Your task to perform on an android device: delete a single message in the gmail app Image 0: 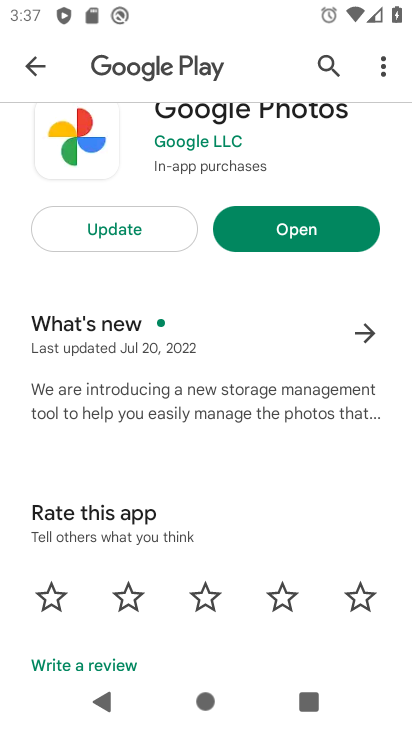
Step 0: press home button
Your task to perform on an android device: delete a single message in the gmail app Image 1: 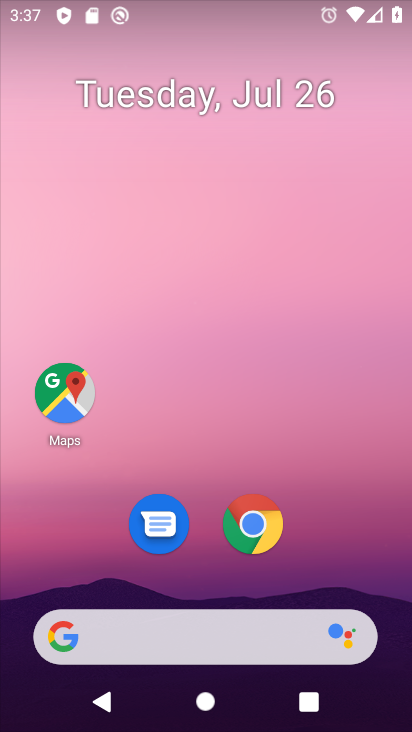
Step 1: drag from (309, 311) to (285, 49)
Your task to perform on an android device: delete a single message in the gmail app Image 2: 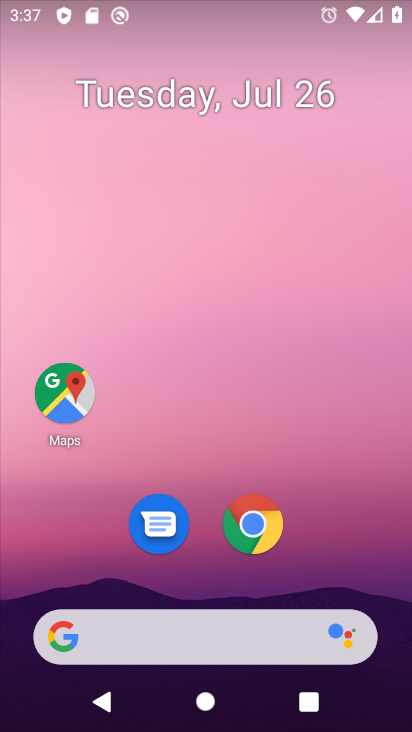
Step 2: drag from (339, 551) to (292, 0)
Your task to perform on an android device: delete a single message in the gmail app Image 3: 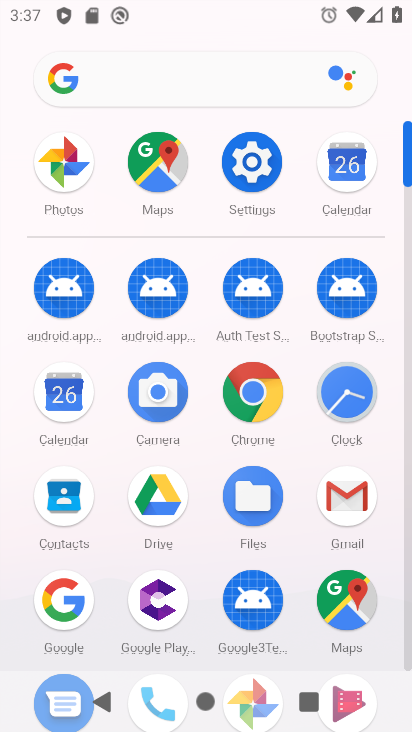
Step 3: click (348, 493)
Your task to perform on an android device: delete a single message in the gmail app Image 4: 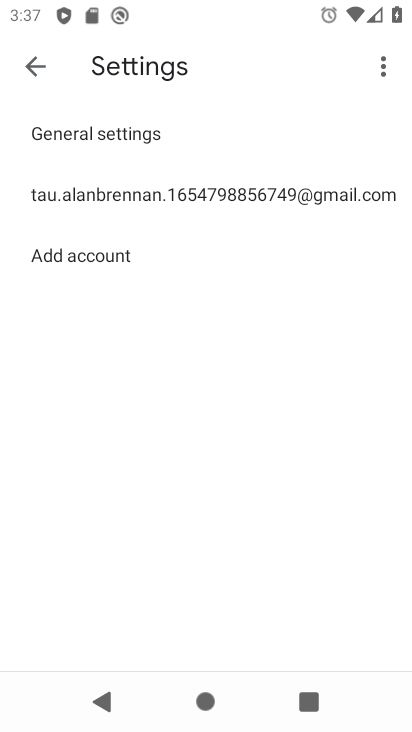
Step 4: click (37, 56)
Your task to perform on an android device: delete a single message in the gmail app Image 5: 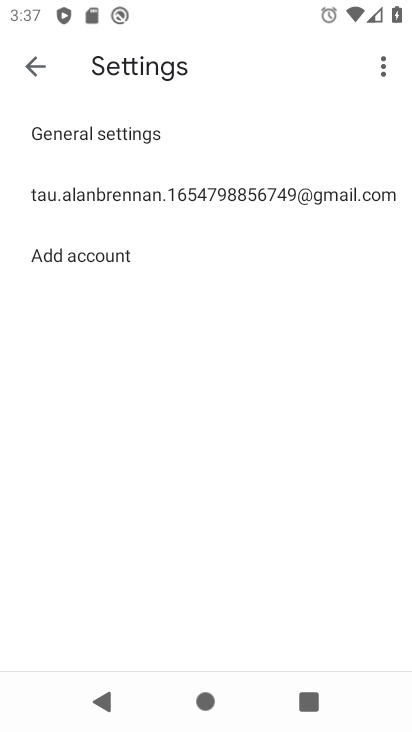
Step 5: click (38, 61)
Your task to perform on an android device: delete a single message in the gmail app Image 6: 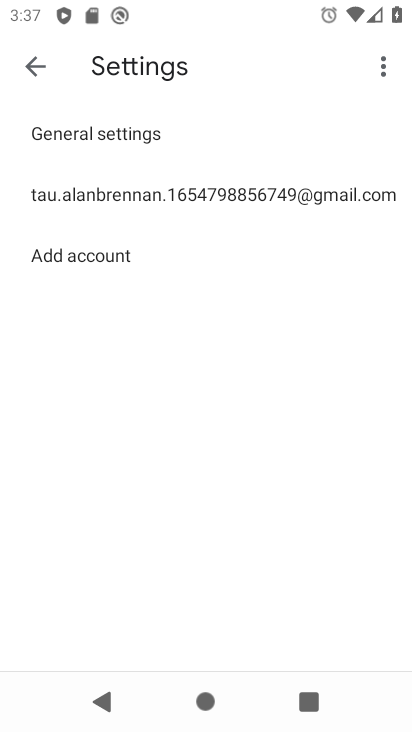
Step 6: click (38, 61)
Your task to perform on an android device: delete a single message in the gmail app Image 7: 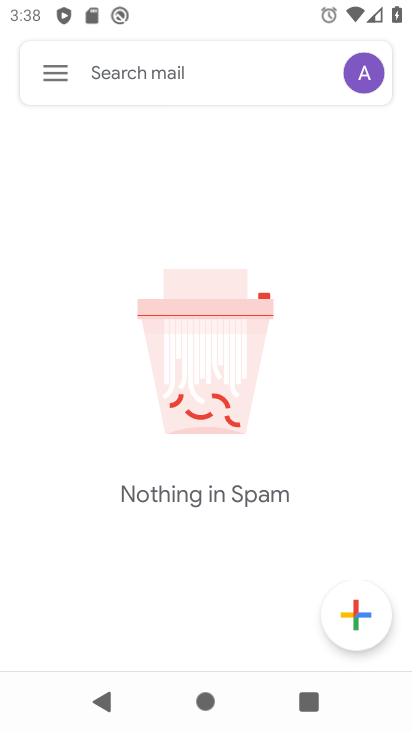
Step 7: click (53, 70)
Your task to perform on an android device: delete a single message in the gmail app Image 8: 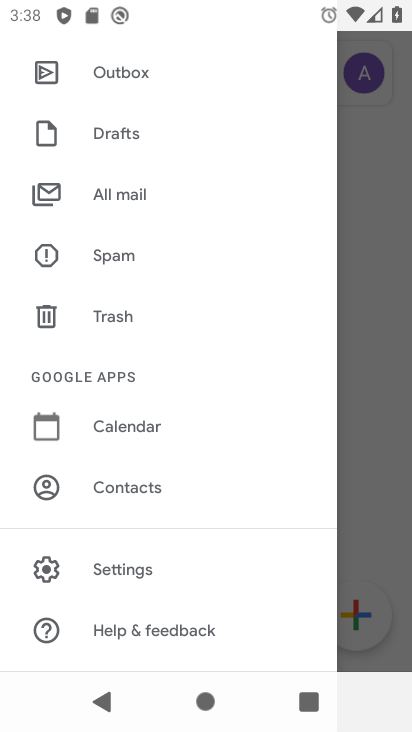
Step 8: click (114, 189)
Your task to perform on an android device: delete a single message in the gmail app Image 9: 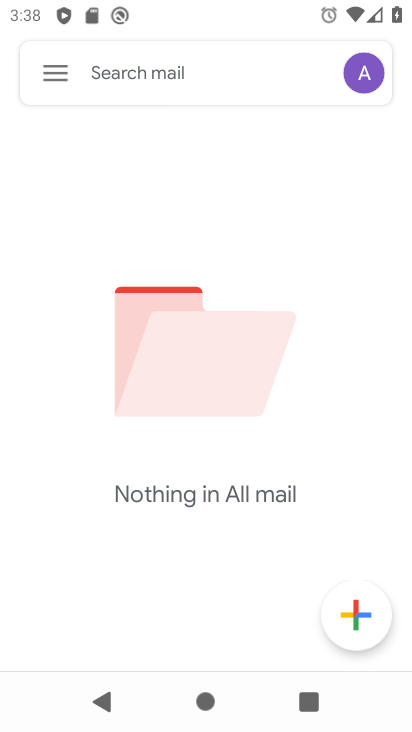
Step 9: task complete